Your task to perform on an android device: turn on location history Image 0: 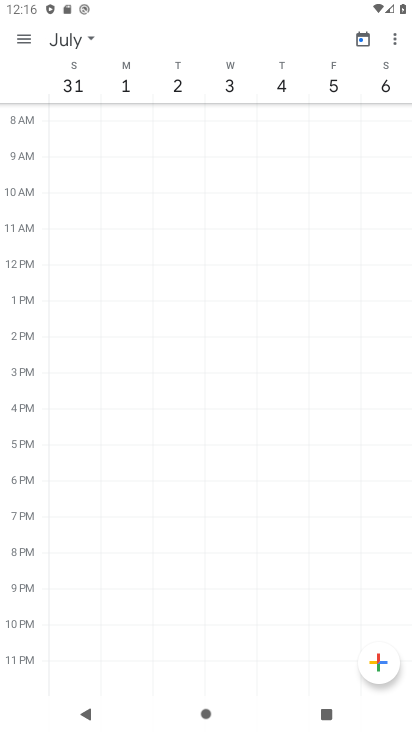
Step 0: press home button
Your task to perform on an android device: turn on location history Image 1: 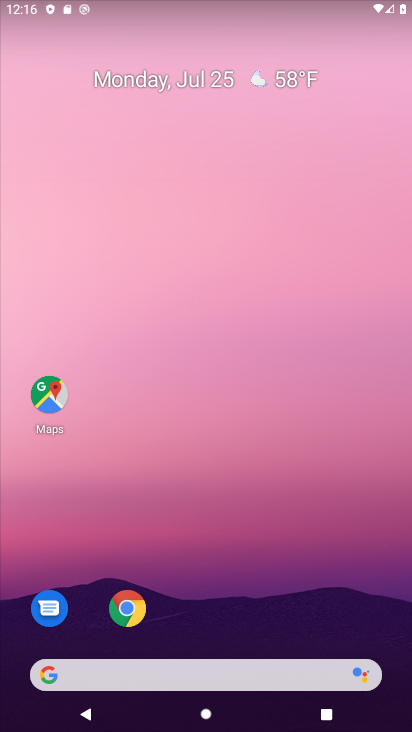
Step 1: drag from (359, 599) to (293, 188)
Your task to perform on an android device: turn on location history Image 2: 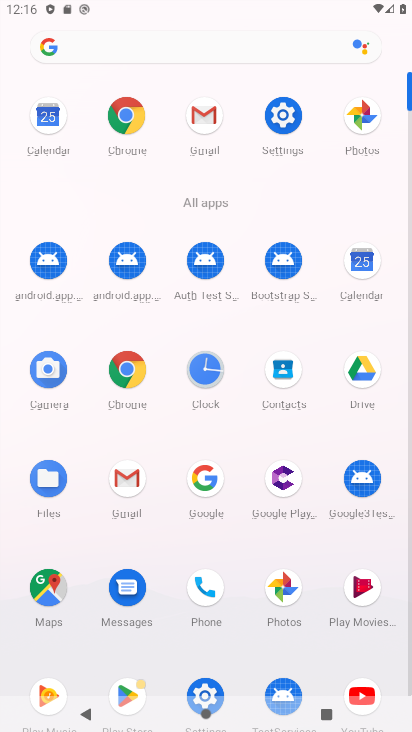
Step 2: click (287, 124)
Your task to perform on an android device: turn on location history Image 3: 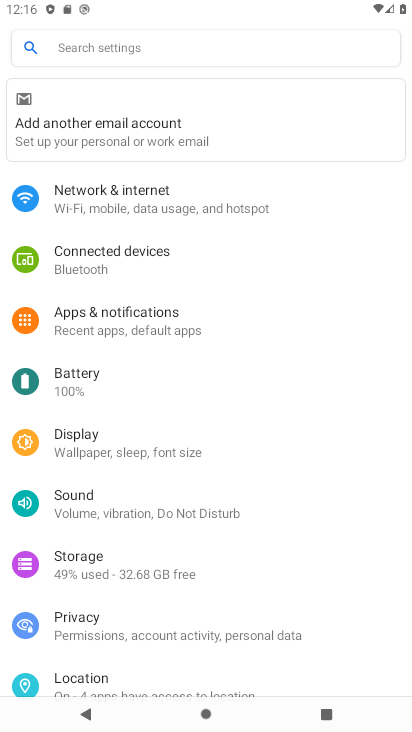
Step 3: click (85, 679)
Your task to perform on an android device: turn on location history Image 4: 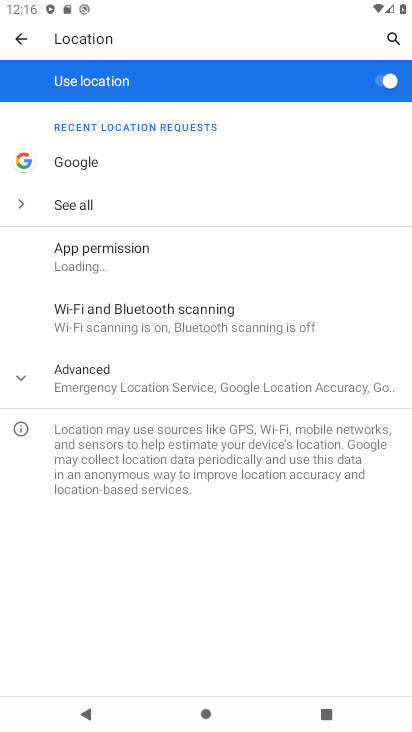
Step 4: click (148, 356)
Your task to perform on an android device: turn on location history Image 5: 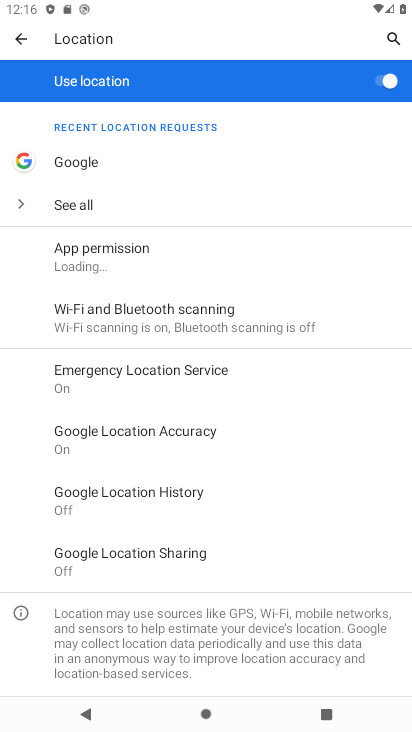
Step 5: click (148, 483)
Your task to perform on an android device: turn on location history Image 6: 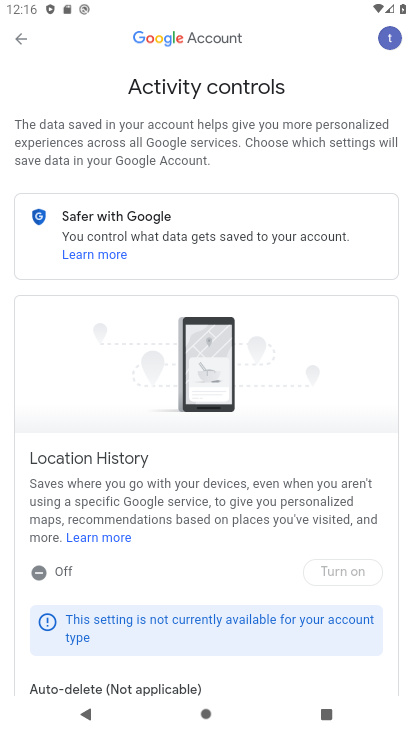
Step 6: task complete